Your task to perform on an android device: find snoozed emails in the gmail app Image 0: 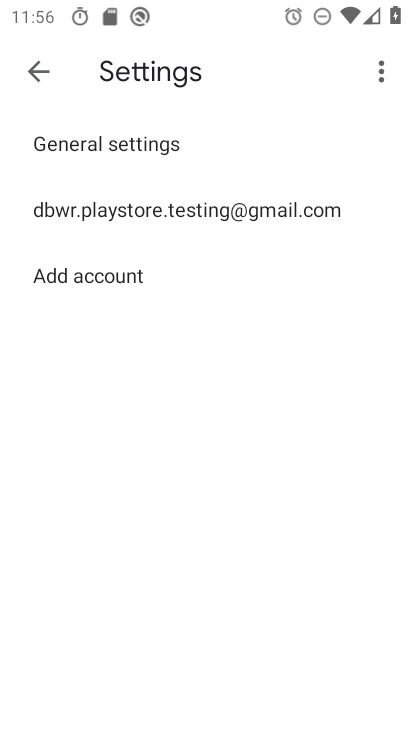
Step 0: click (31, 75)
Your task to perform on an android device: find snoozed emails in the gmail app Image 1: 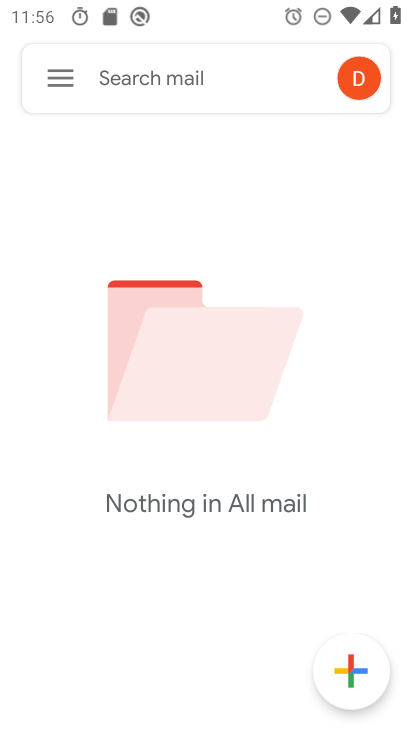
Step 1: click (56, 78)
Your task to perform on an android device: find snoozed emails in the gmail app Image 2: 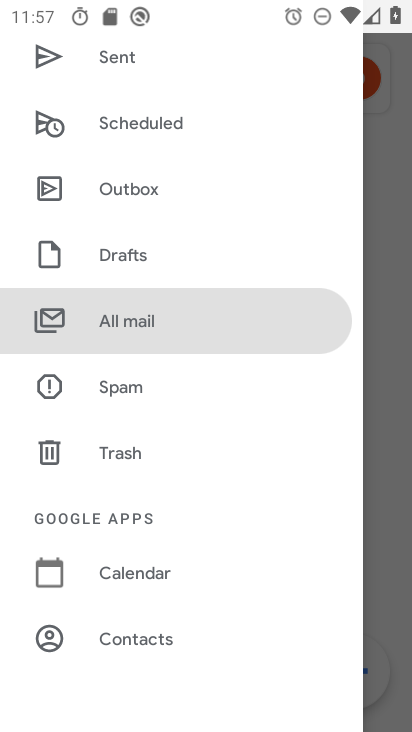
Step 2: drag from (259, 241) to (238, 723)
Your task to perform on an android device: find snoozed emails in the gmail app Image 3: 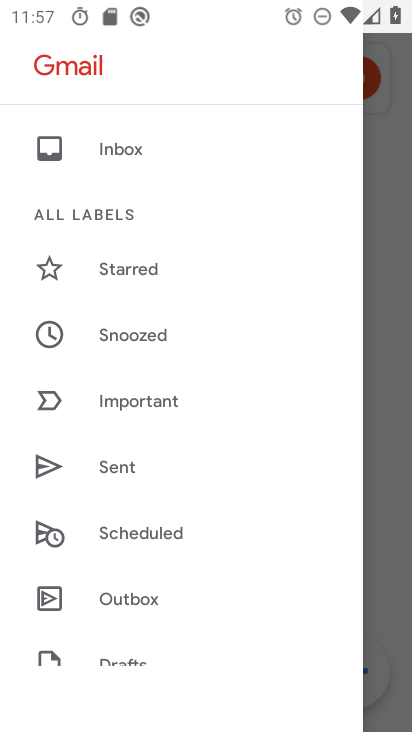
Step 3: click (129, 338)
Your task to perform on an android device: find snoozed emails in the gmail app Image 4: 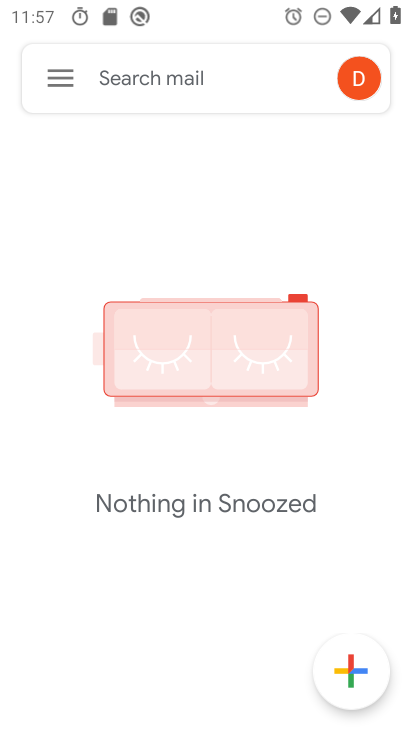
Step 4: task complete